Your task to perform on an android device: Open Reddit.com Image 0: 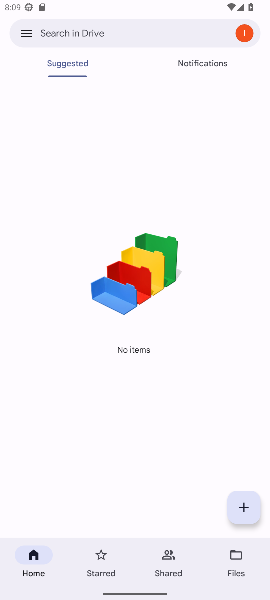
Step 0: press home button
Your task to perform on an android device: Open Reddit.com Image 1: 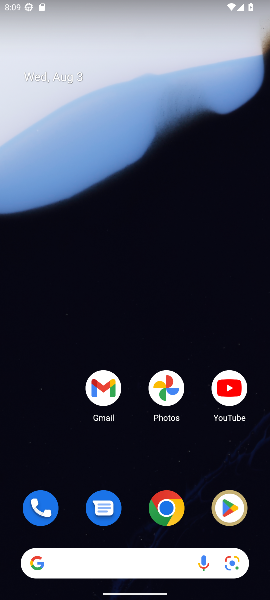
Step 1: click (174, 523)
Your task to perform on an android device: Open Reddit.com Image 2: 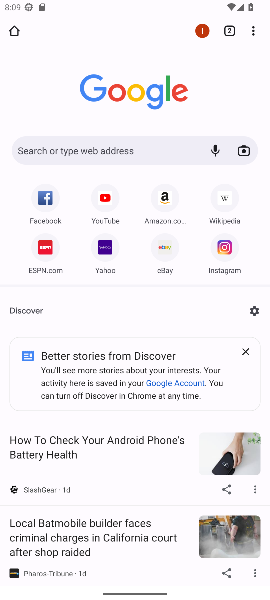
Step 2: click (88, 161)
Your task to perform on an android device: Open Reddit.com Image 3: 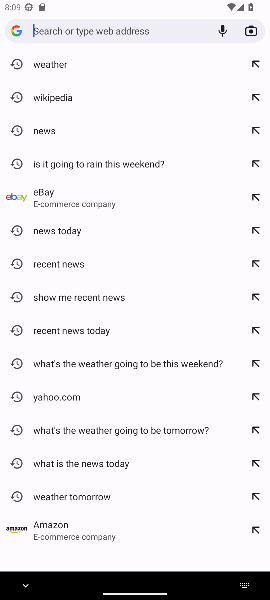
Step 3: type "Reddit.com"
Your task to perform on an android device: Open Reddit.com Image 4: 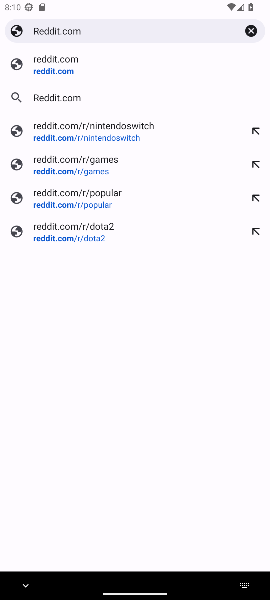
Step 4: click (49, 63)
Your task to perform on an android device: Open Reddit.com Image 5: 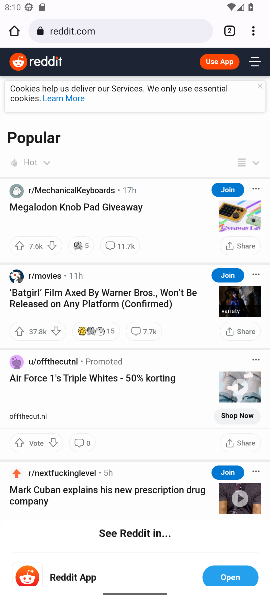
Step 5: task complete